Your task to perform on an android device: What's the weather going to be this weekend? Image 0: 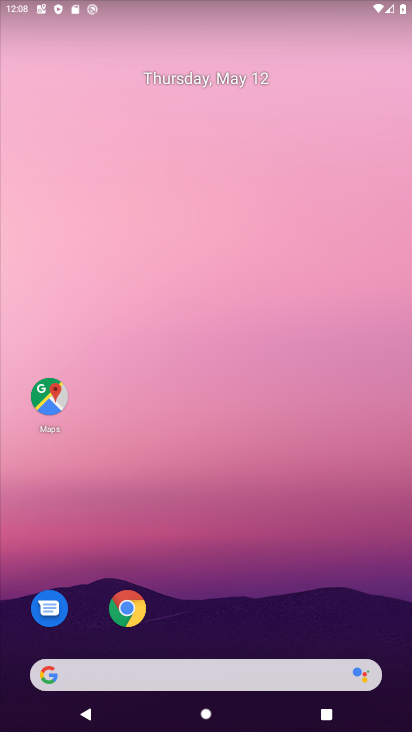
Step 0: click (97, 669)
Your task to perform on an android device: What's the weather going to be this weekend? Image 1: 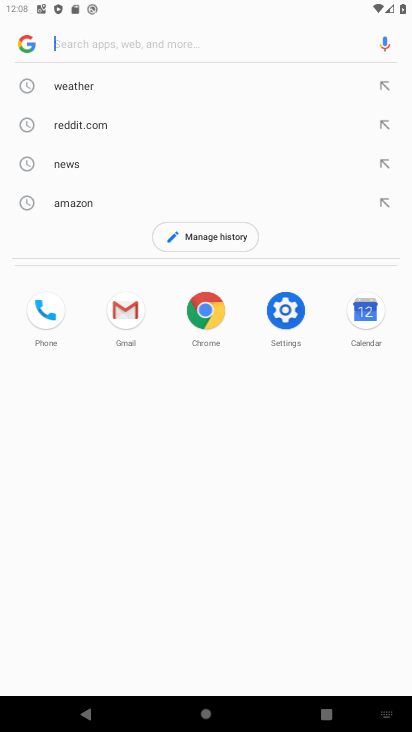
Step 1: click (54, 91)
Your task to perform on an android device: What's the weather going to be this weekend? Image 2: 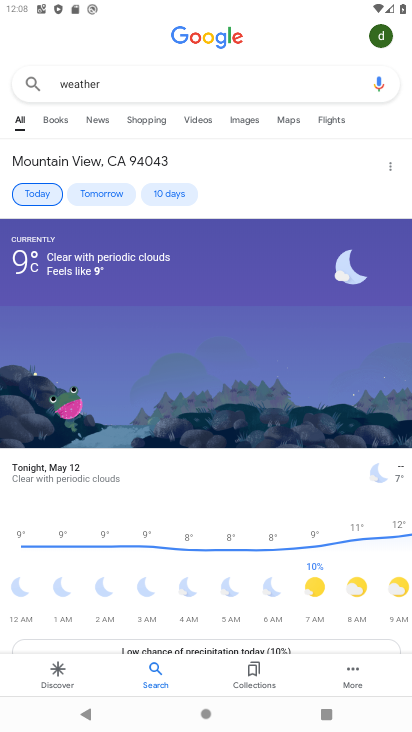
Step 2: click (173, 189)
Your task to perform on an android device: What's the weather going to be this weekend? Image 3: 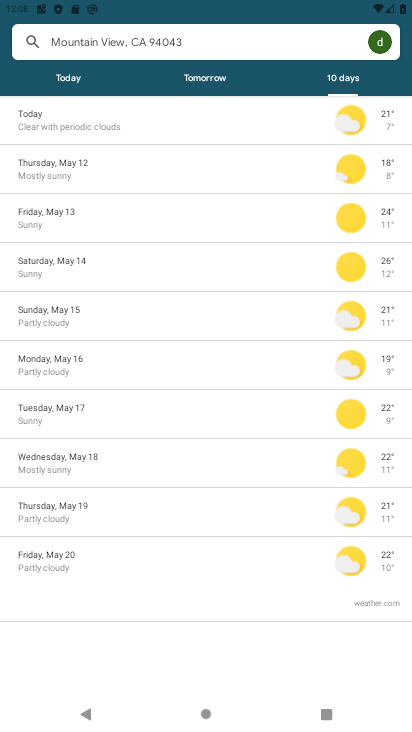
Step 3: task complete